Your task to perform on an android device: Open Android settings Image 0: 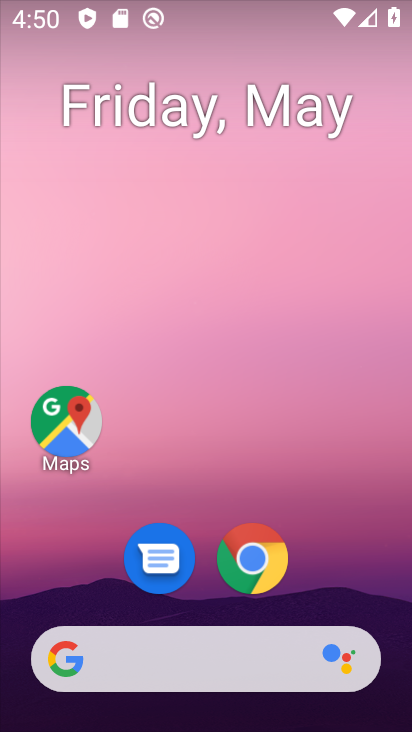
Step 0: drag from (385, 610) to (309, 35)
Your task to perform on an android device: Open Android settings Image 1: 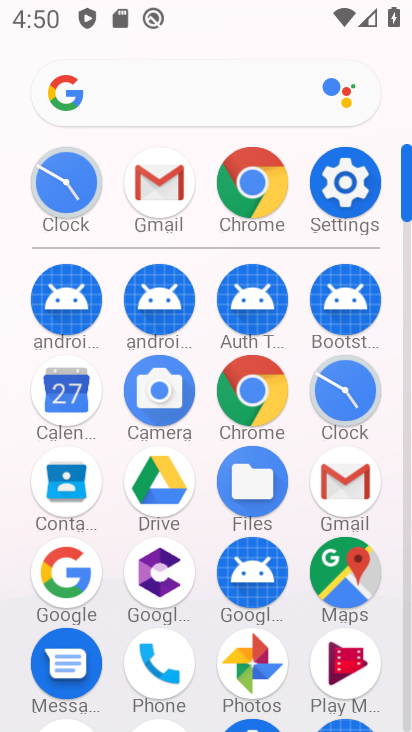
Step 1: click (364, 194)
Your task to perform on an android device: Open Android settings Image 2: 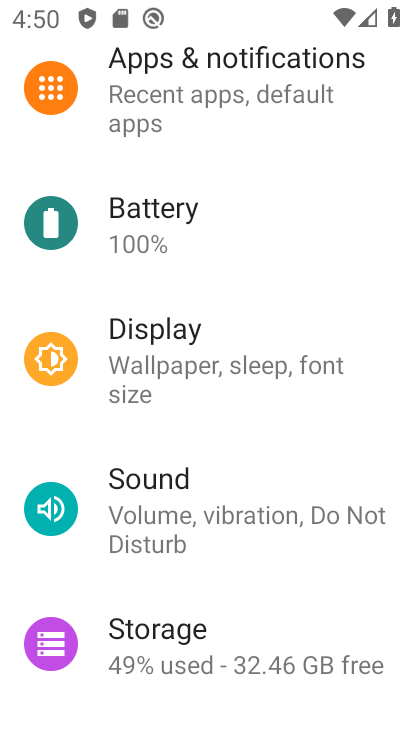
Step 2: task complete